Your task to perform on an android device: Search for seafood restaurants on Google Maps Image 0: 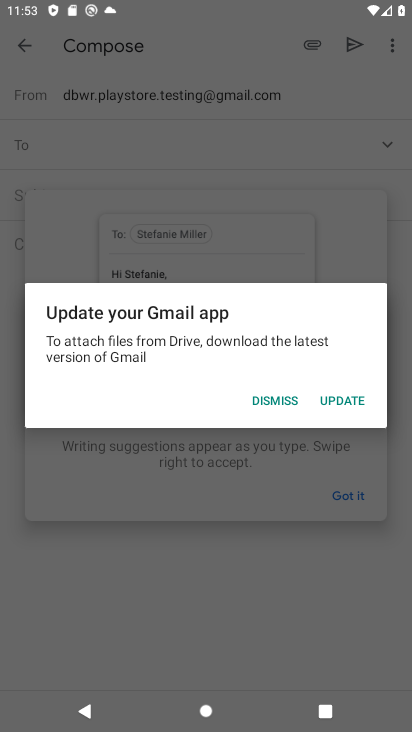
Step 0: press home button
Your task to perform on an android device: Search for seafood restaurants on Google Maps Image 1: 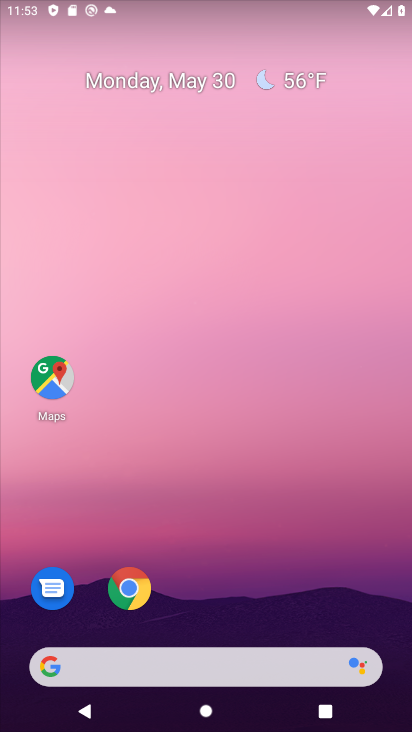
Step 1: click (58, 398)
Your task to perform on an android device: Search for seafood restaurants on Google Maps Image 2: 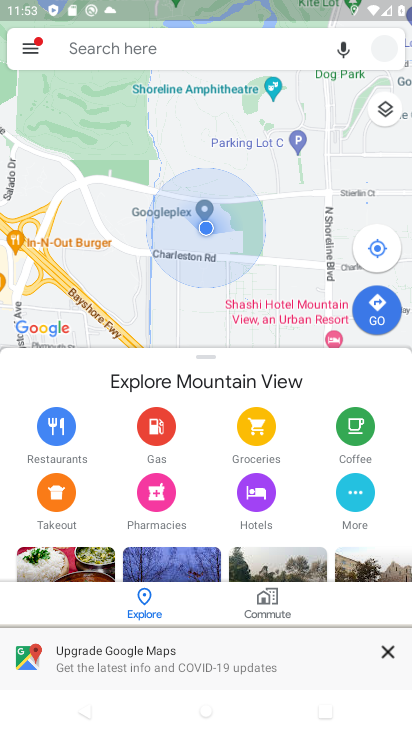
Step 2: click (107, 50)
Your task to perform on an android device: Search for seafood restaurants on Google Maps Image 3: 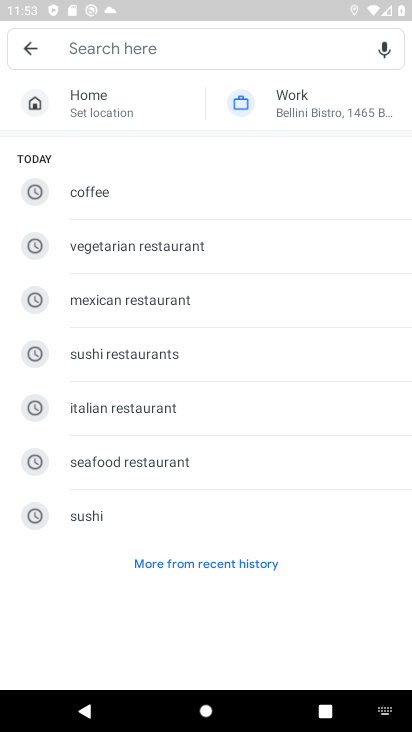
Step 3: click (132, 468)
Your task to perform on an android device: Search for seafood restaurants on Google Maps Image 4: 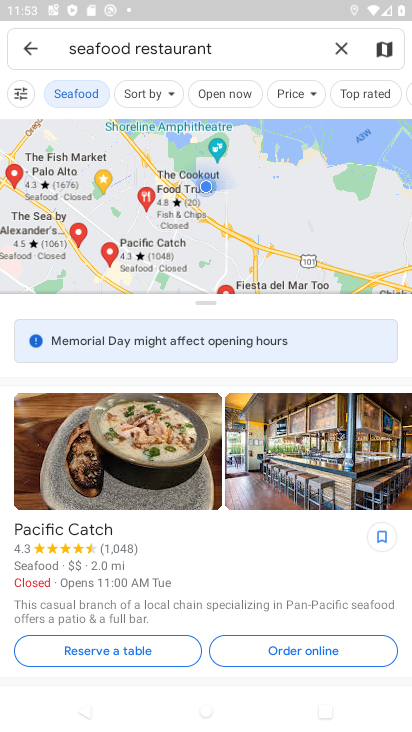
Step 4: task complete